Your task to perform on an android device: turn on data saver in the chrome app Image 0: 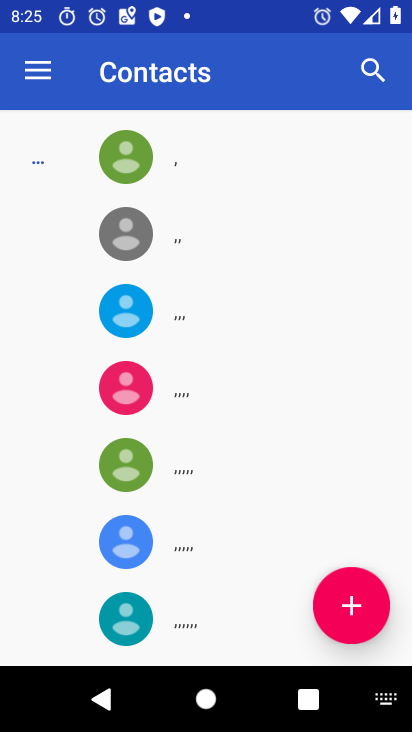
Step 0: press home button
Your task to perform on an android device: turn on data saver in the chrome app Image 1: 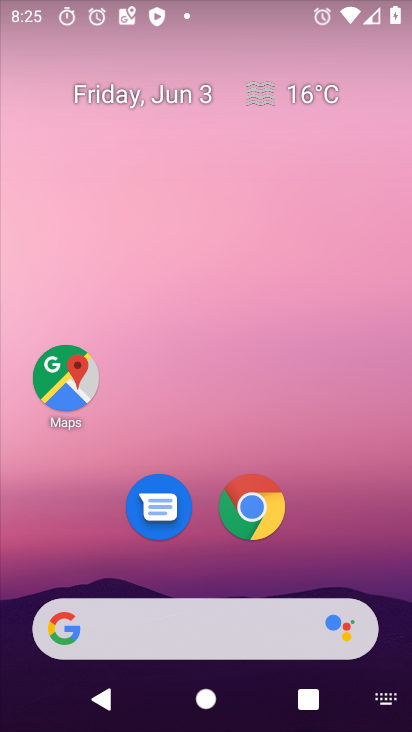
Step 1: click (238, 521)
Your task to perform on an android device: turn on data saver in the chrome app Image 2: 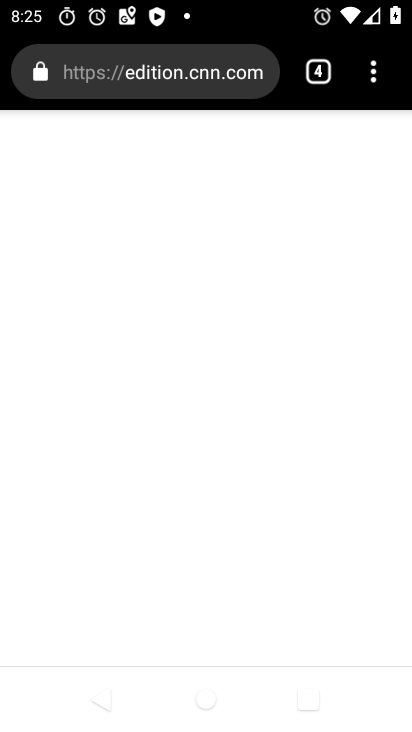
Step 2: click (370, 73)
Your task to perform on an android device: turn on data saver in the chrome app Image 3: 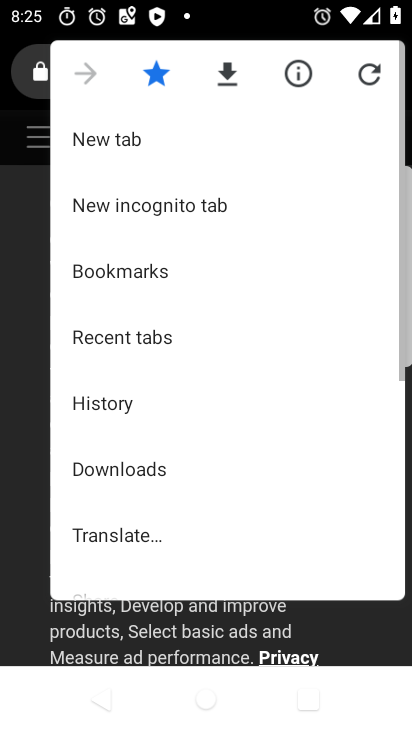
Step 3: click (372, 71)
Your task to perform on an android device: turn on data saver in the chrome app Image 4: 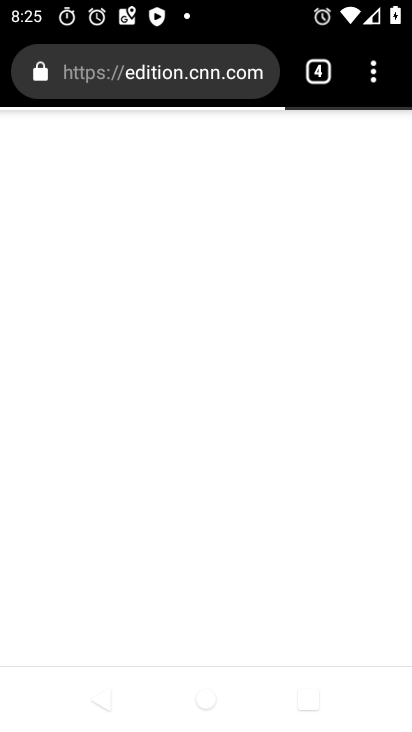
Step 4: click (372, 61)
Your task to perform on an android device: turn on data saver in the chrome app Image 5: 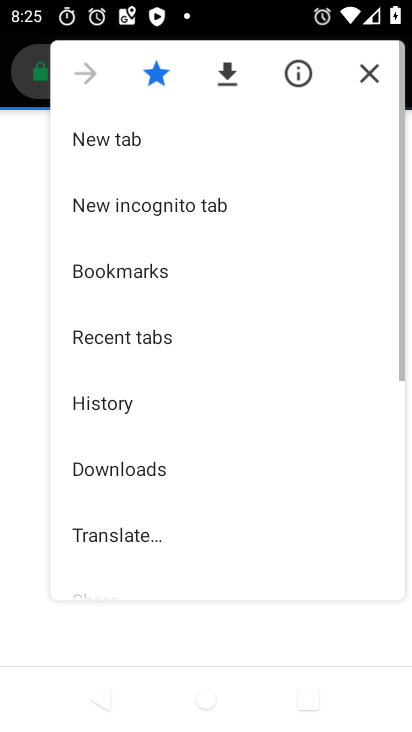
Step 5: drag from (219, 495) to (152, 24)
Your task to perform on an android device: turn on data saver in the chrome app Image 6: 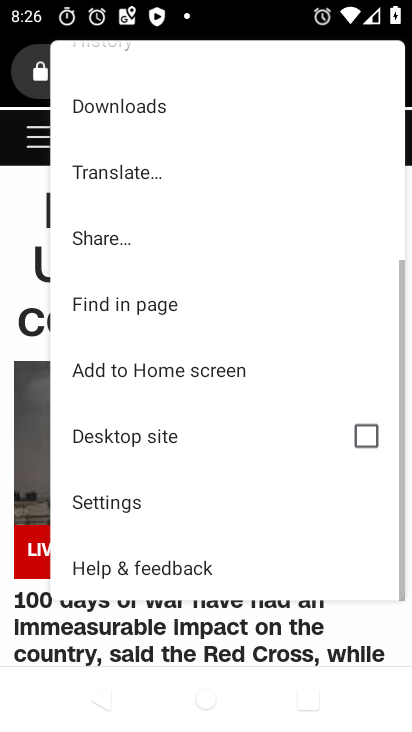
Step 6: drag from (192, 508) to (213, 152)
Your task to perform on an android device: turn on data saver in the chrome app Image 7: 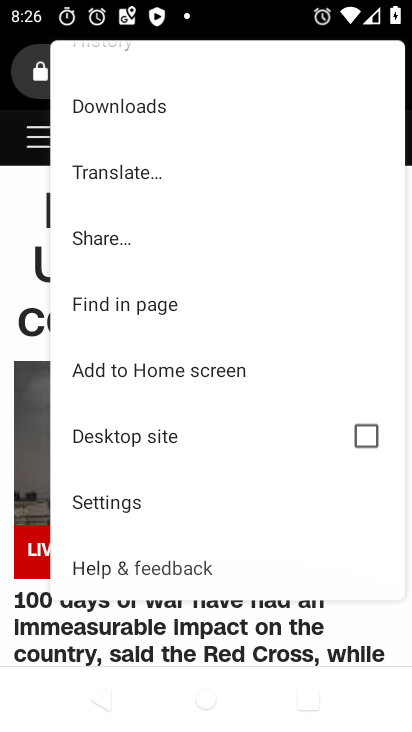
Step 7: click (139, 497)
Your task to perform on an android device: turn on data saver in the chrome app Image 8: 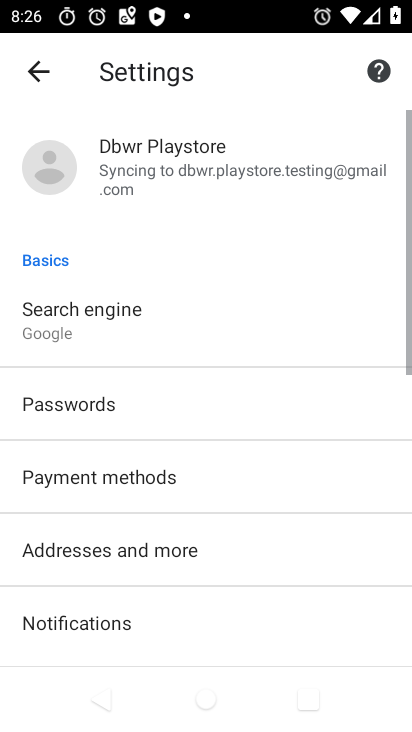
Step 8: drag from (267, 528) to (74, 22)
Your task to perform on an android device: turn on data saver in the chrome app Image 9: 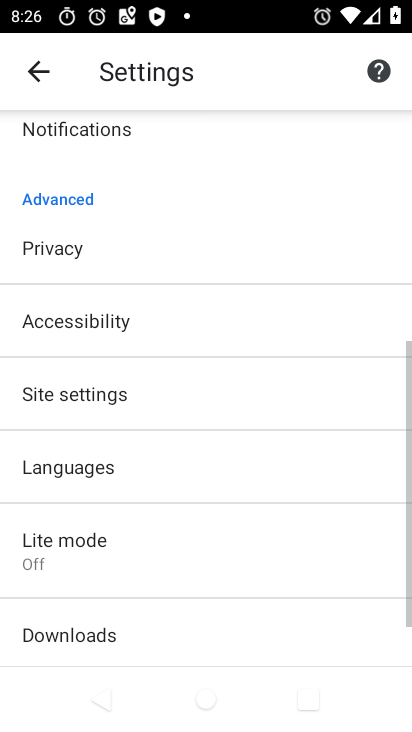
Step 9: click (167, 504)
Your task to perform on an android device: turn on data saver in the chrome app Image 10: 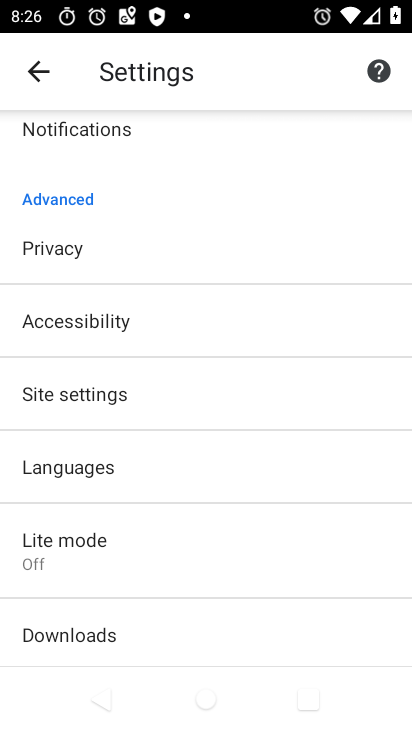
Step 10: click (127, 551)
Your task to perform on an android device: turn on data saver in the chrome app Image 11: 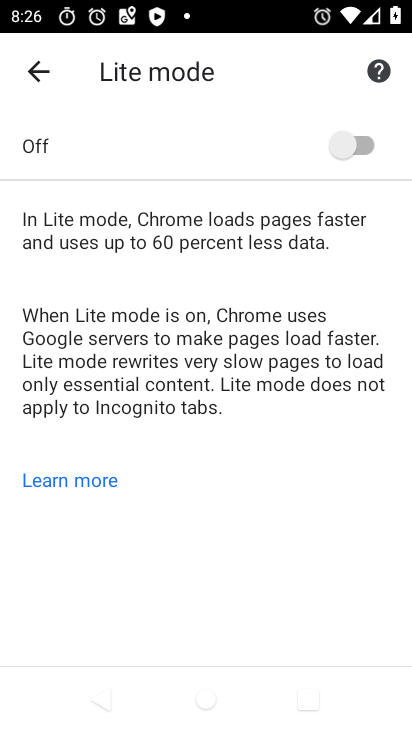
Step 11: click (320, 158)
Your task to perform on an android device: turn on data saver in the chrome app Image 12: 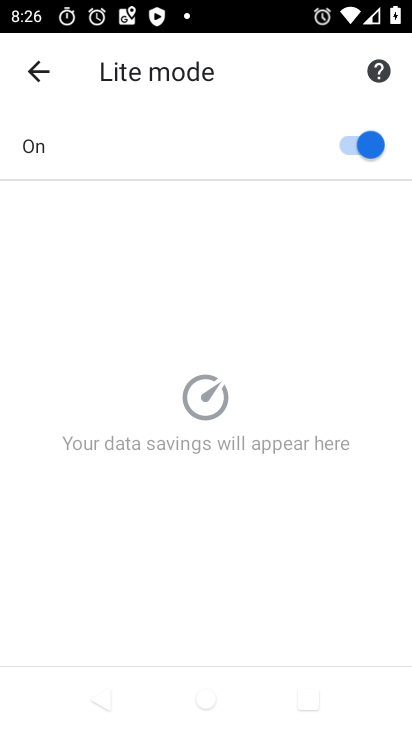
Step 12: task complete